Your task to perform on an android device: check data usage Image 0: 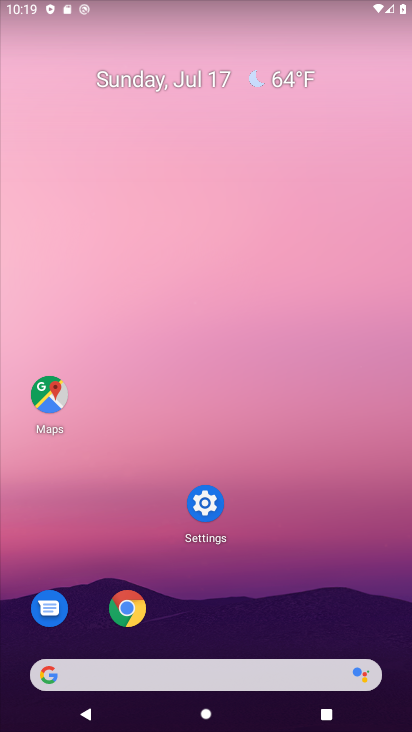
Step 0: click (214, 501)
Your task to perform on an android device: check data usage Image 1: 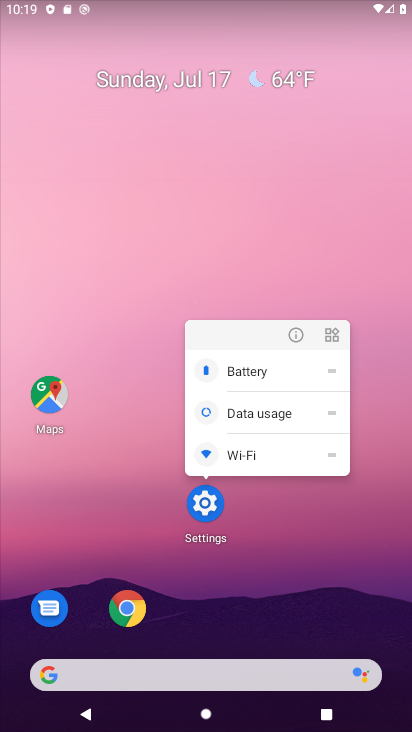
Step 1: click (203, 503)
Your task to perform on an android device: check data usage Image 2: 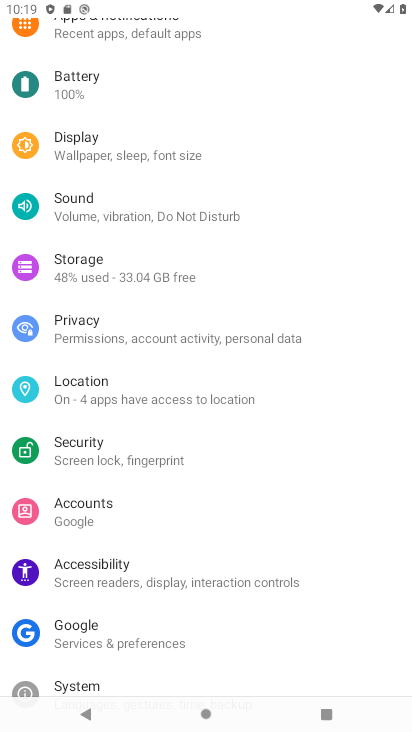
Step 2: drag from (150, 129) to (204, 587)
Your task to perform on an android device: check data usage Image 3: 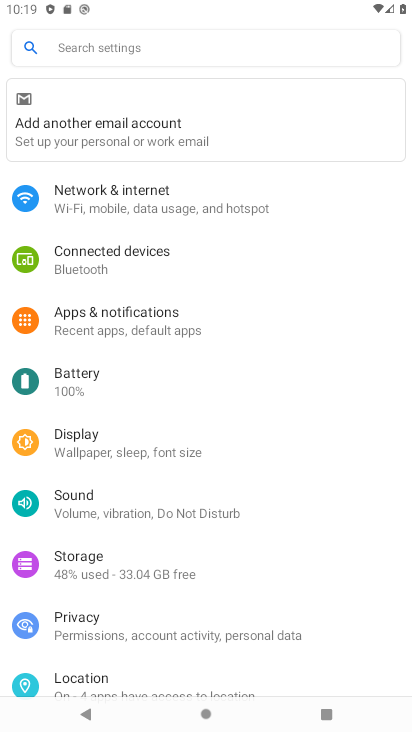
Step 3: click (84, 185)
Your task to perform on an android device: check data usage Image 4: 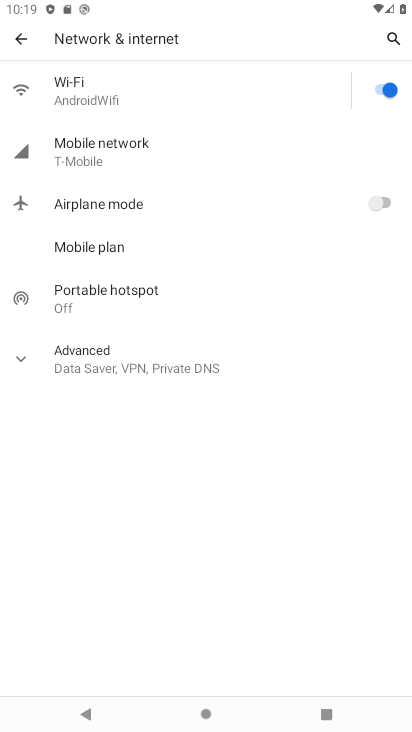
Step 4: click (43, 352)
Your task to perform on an android device: check data usage Image 5: 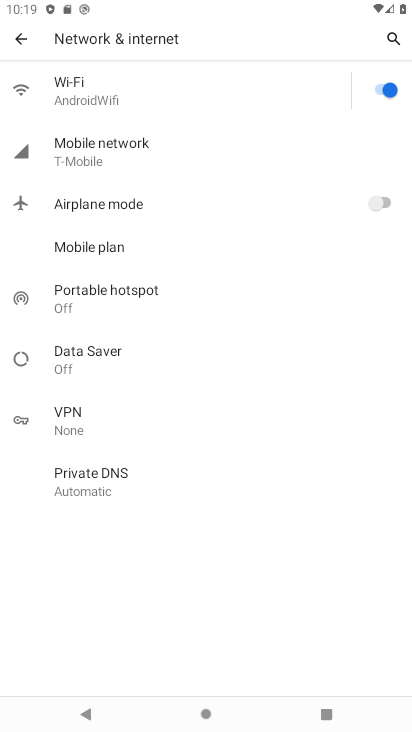
Step 5: click (116, 151)
Your task to perform on an android device: check data usage Image 6: 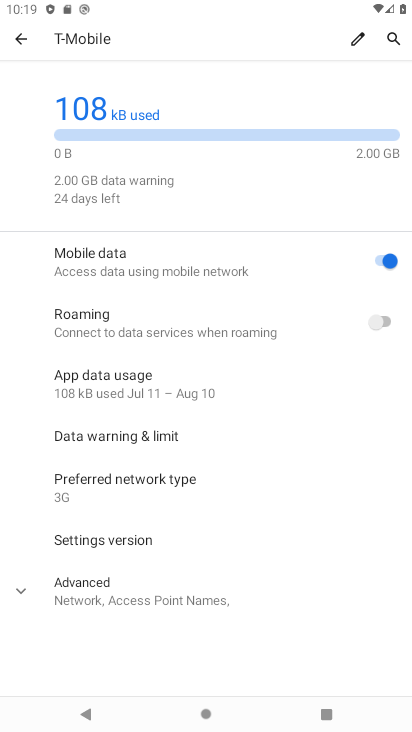
Step 6: task complete